Your task to perform on an android device: set the timer Image 0: 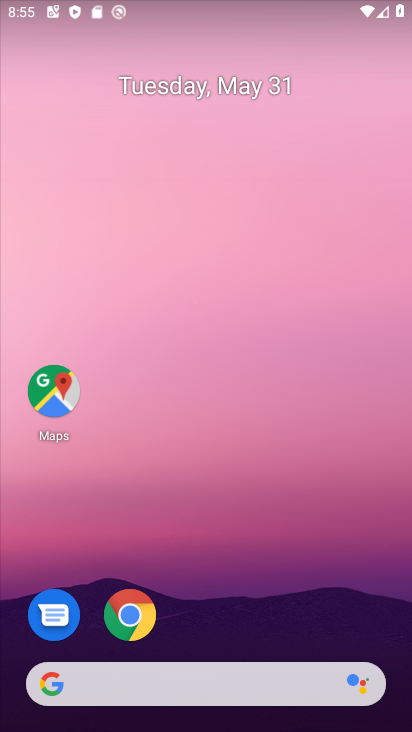
Step 0: drag from (370, 638) to (300, 209)
Your task to perform on an android device: set the timer Image 1: 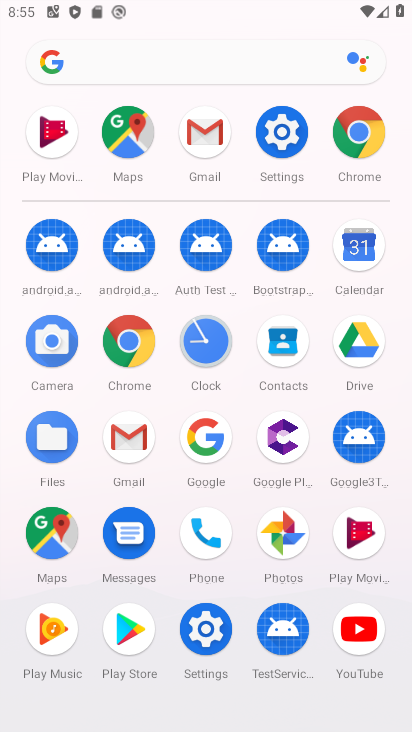
Step 1: click (199, 337)
Your task to perform on an android device: set the timer Image 2: 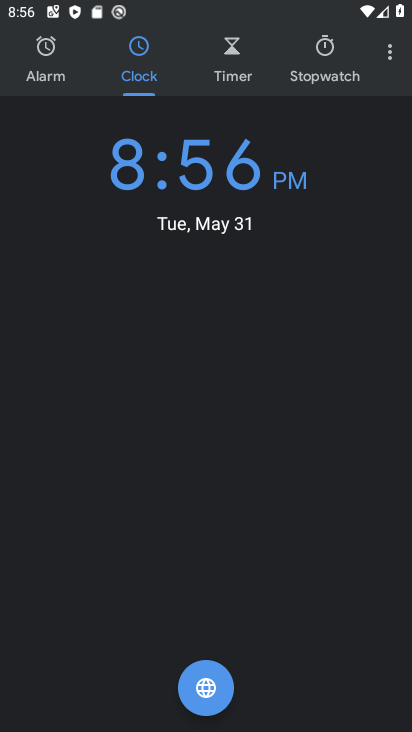
Step 2: click (242, 44)
Your task to perform on an android device: set the timer Image 3: 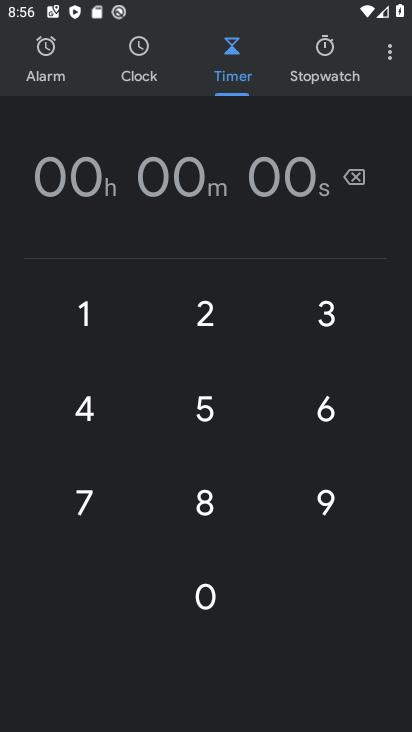
Step 3: click (92, 326)
Your task to perform on an android device: set the timer Image 4: 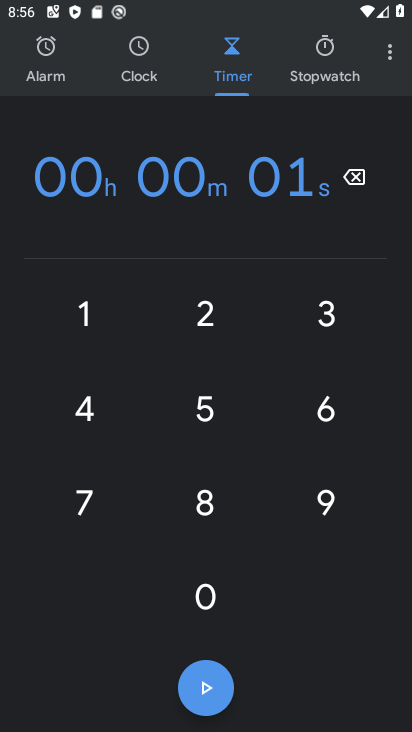
Step 4: click (338, 319)
Your task to perform on an android device: set the timer Image 5: 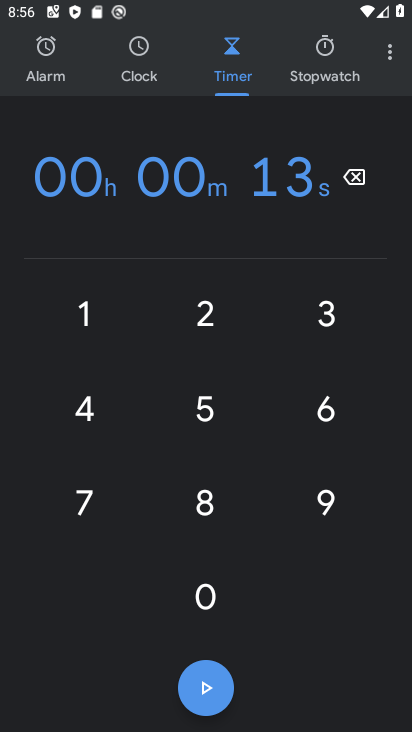
Step 5: click (214, 602)
Your task to perform on an android device: set the timer Image 6: 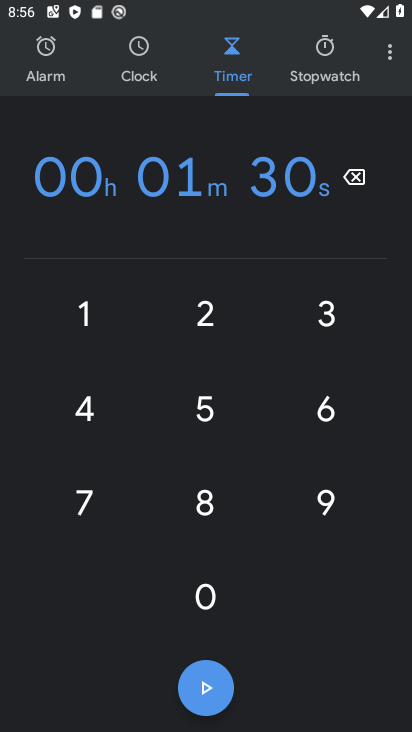
Step 6: click (214, 602)
Your task to perform on an android device: set the timer Image 7: 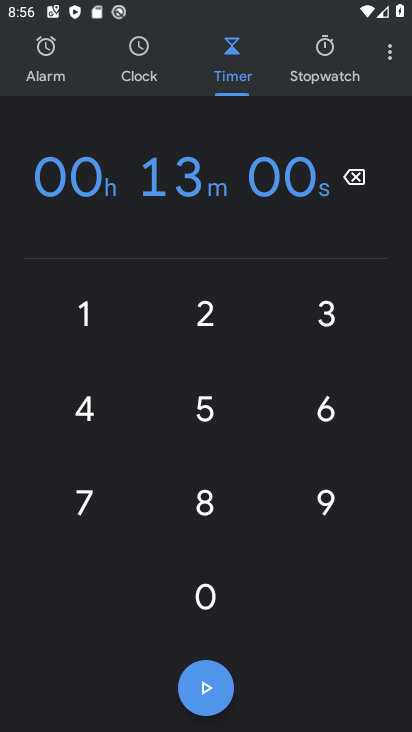
Step 7: click (198, 605)
Your task to perform on an android device: set the timer Image 8: 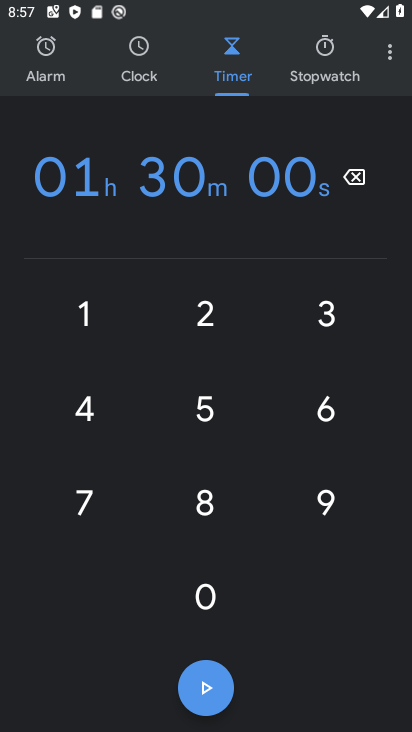
Step 8: task complete